Your task to perform on an android device: Go to notification settings Image 0: 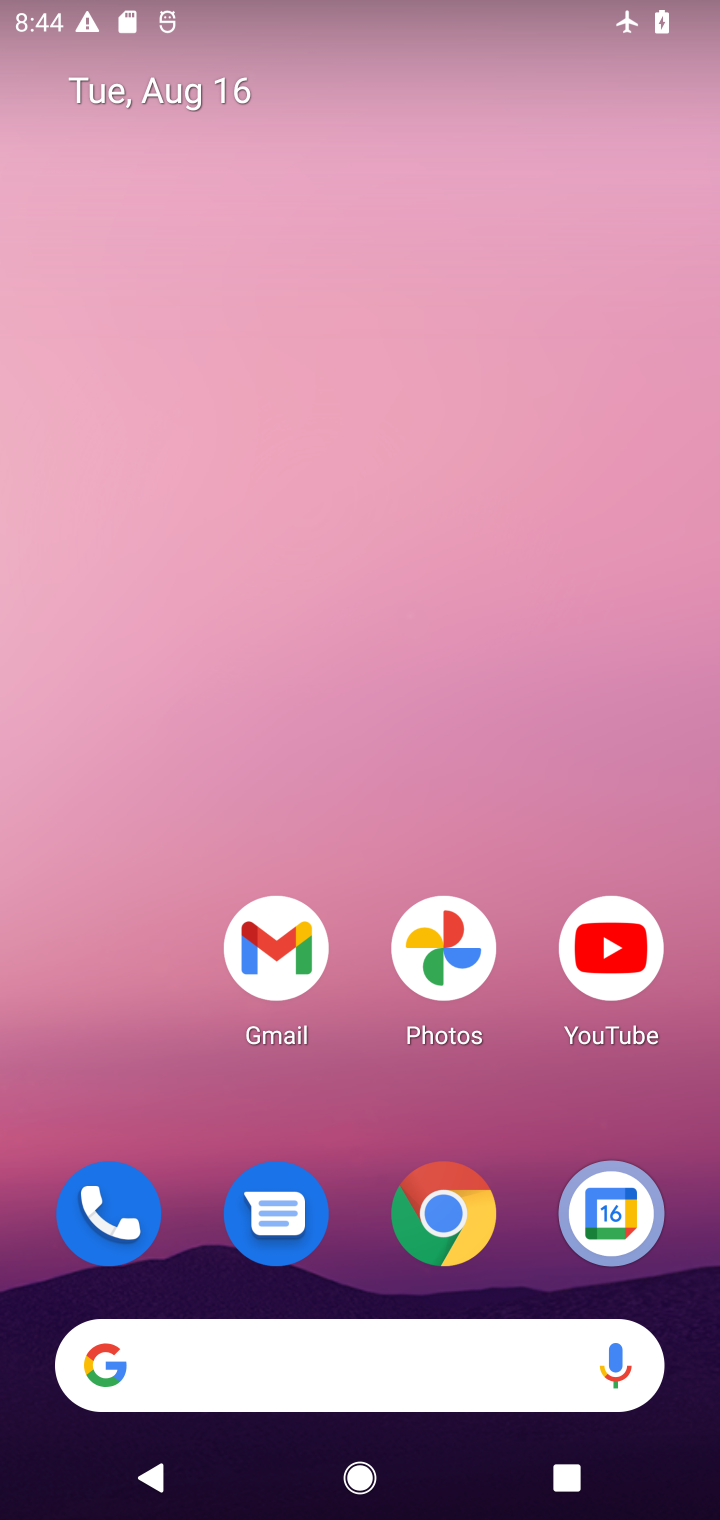
Step 0: drag from (301, 1174) to (340, 335)
Your task to perform on an android device: Go to notification settings Image 1: 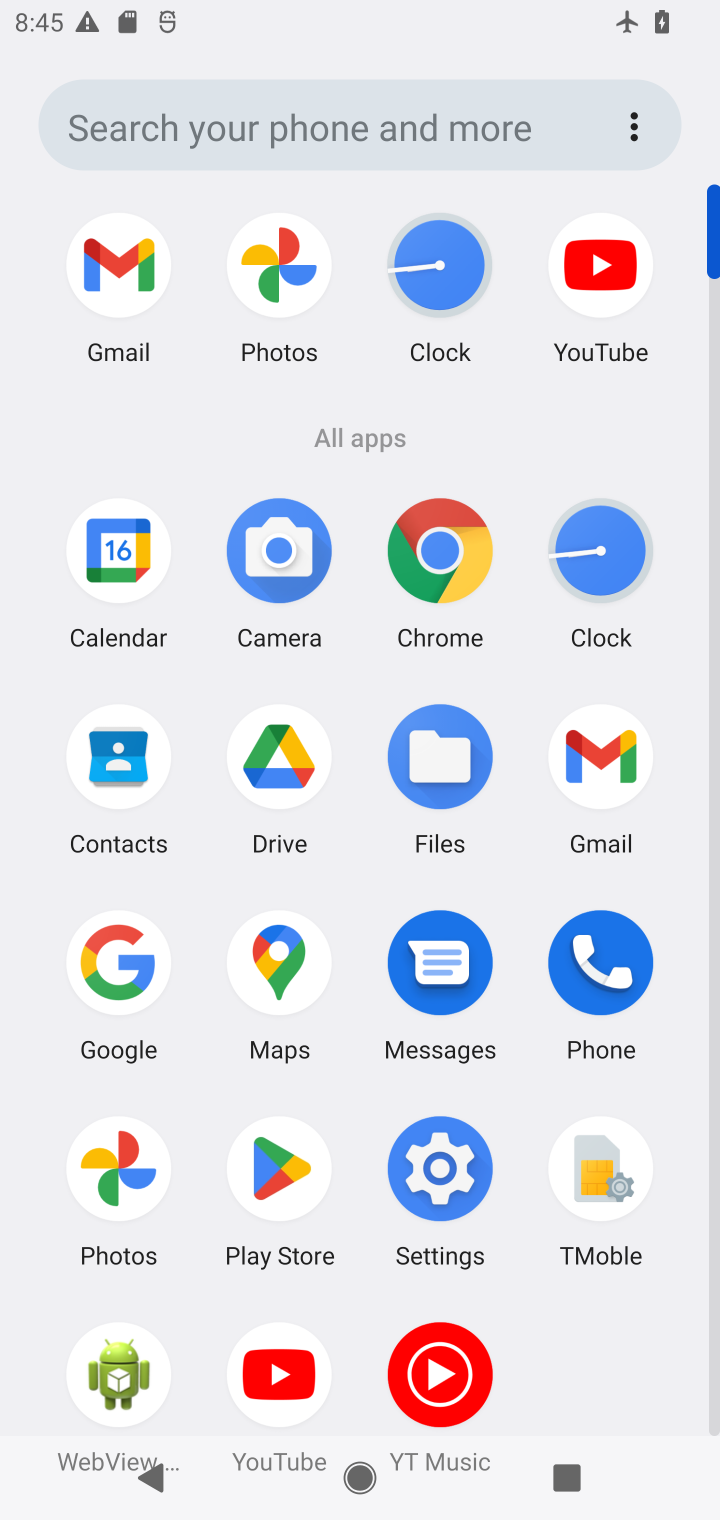
Step 1: click (436, 1153)
Your task to perform on an android device: Go to notification settings Image 2: 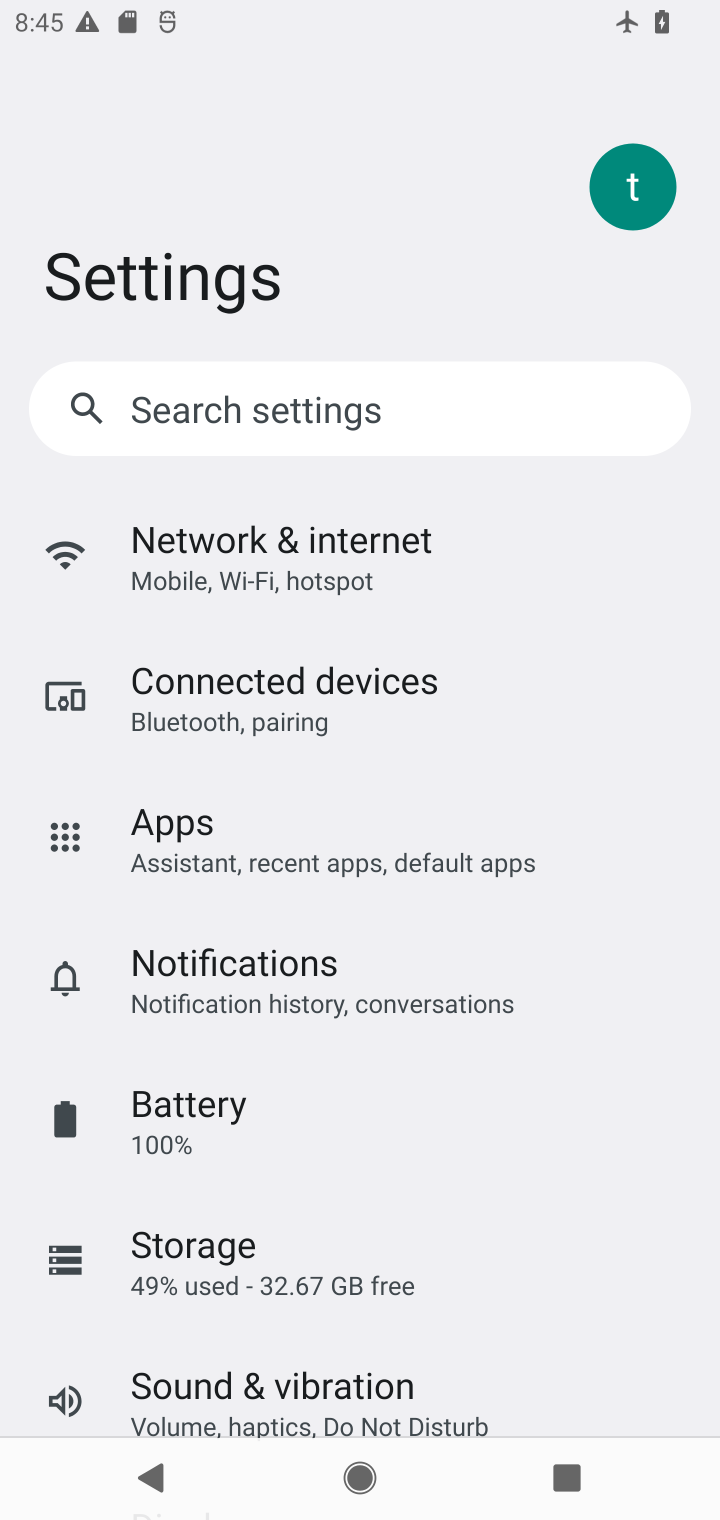
Step 2: click (290, 547)
Your task to perform on an android device: Go to notification settings Image 3: 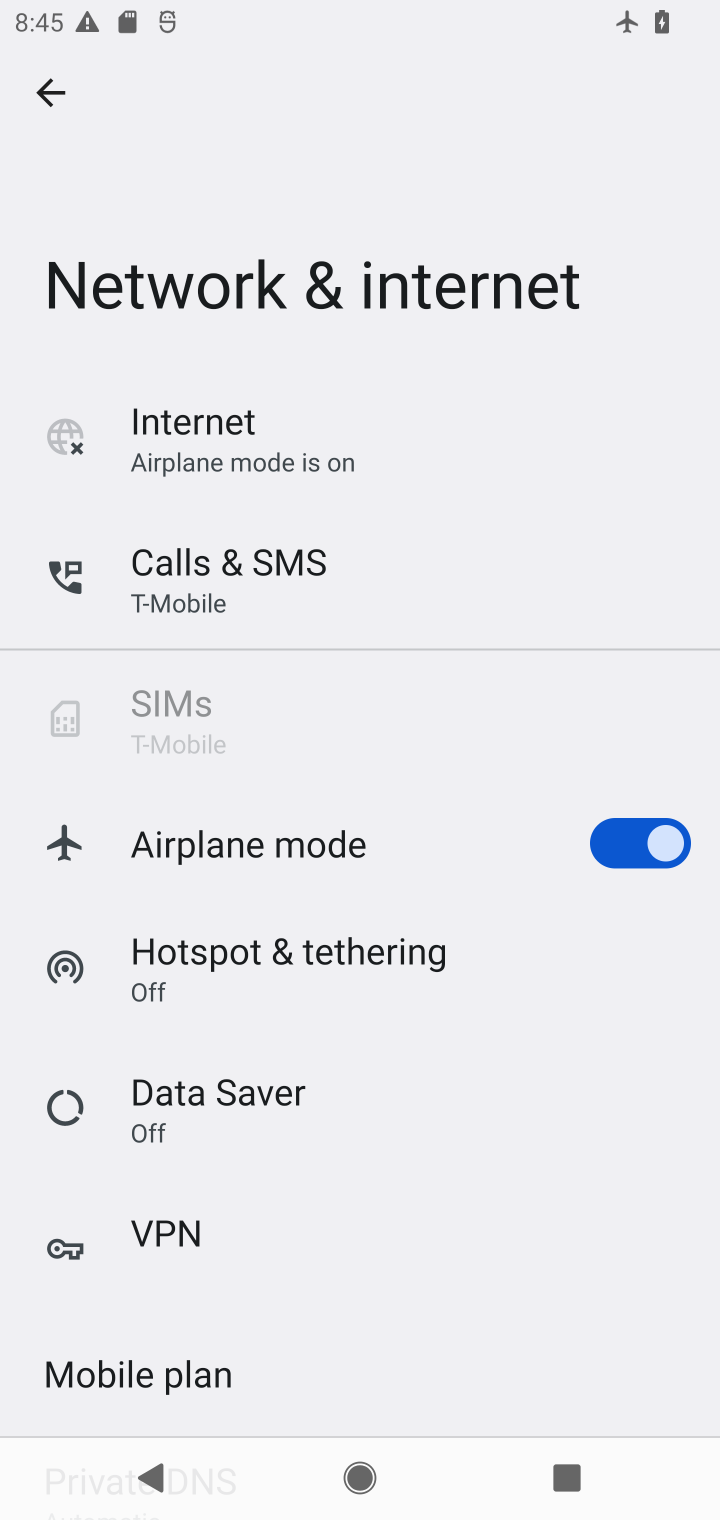
Step 3: click (30, 92)
Your task to perform on an android device: Go to notification settings Image 4: 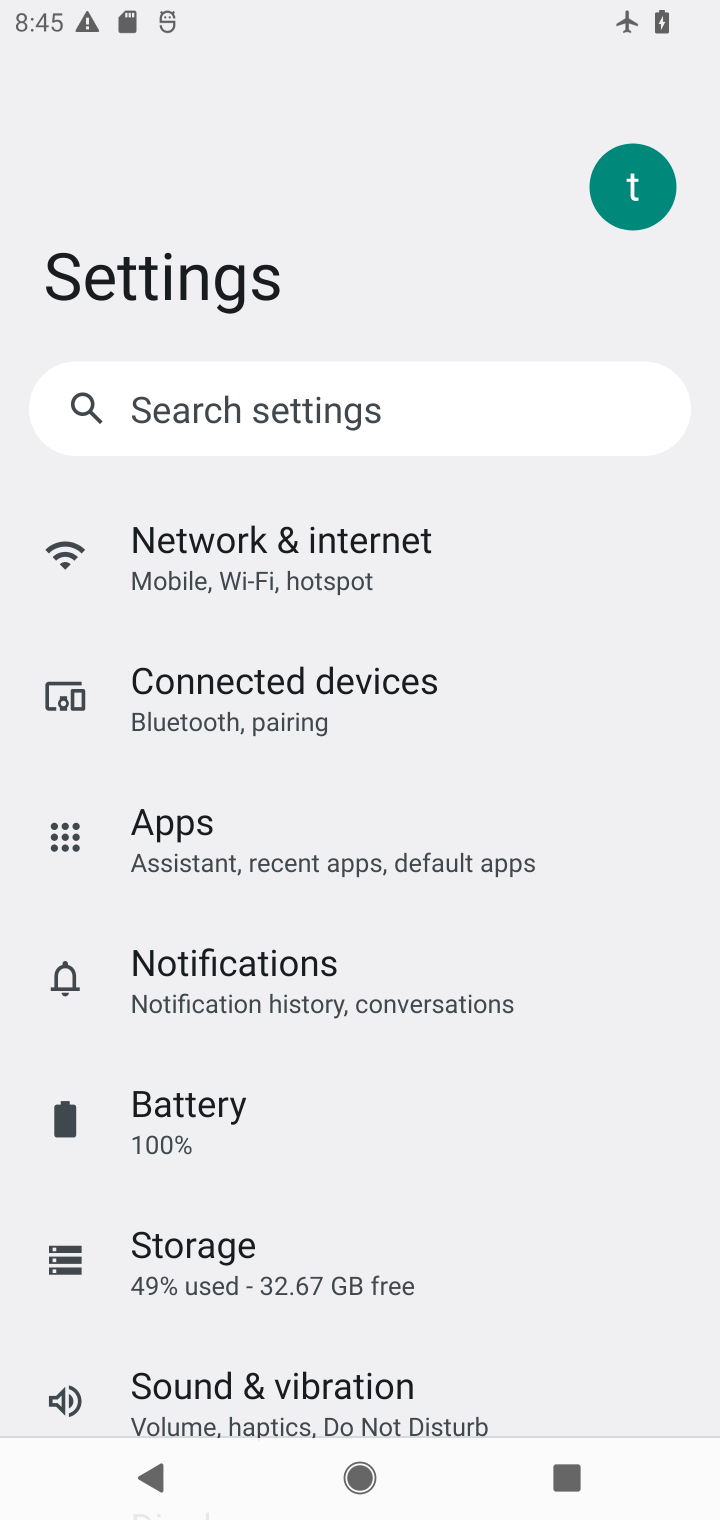
Step 4: click (280, 954)
Your task to perform on an android device: Go to notification settings Image 5: 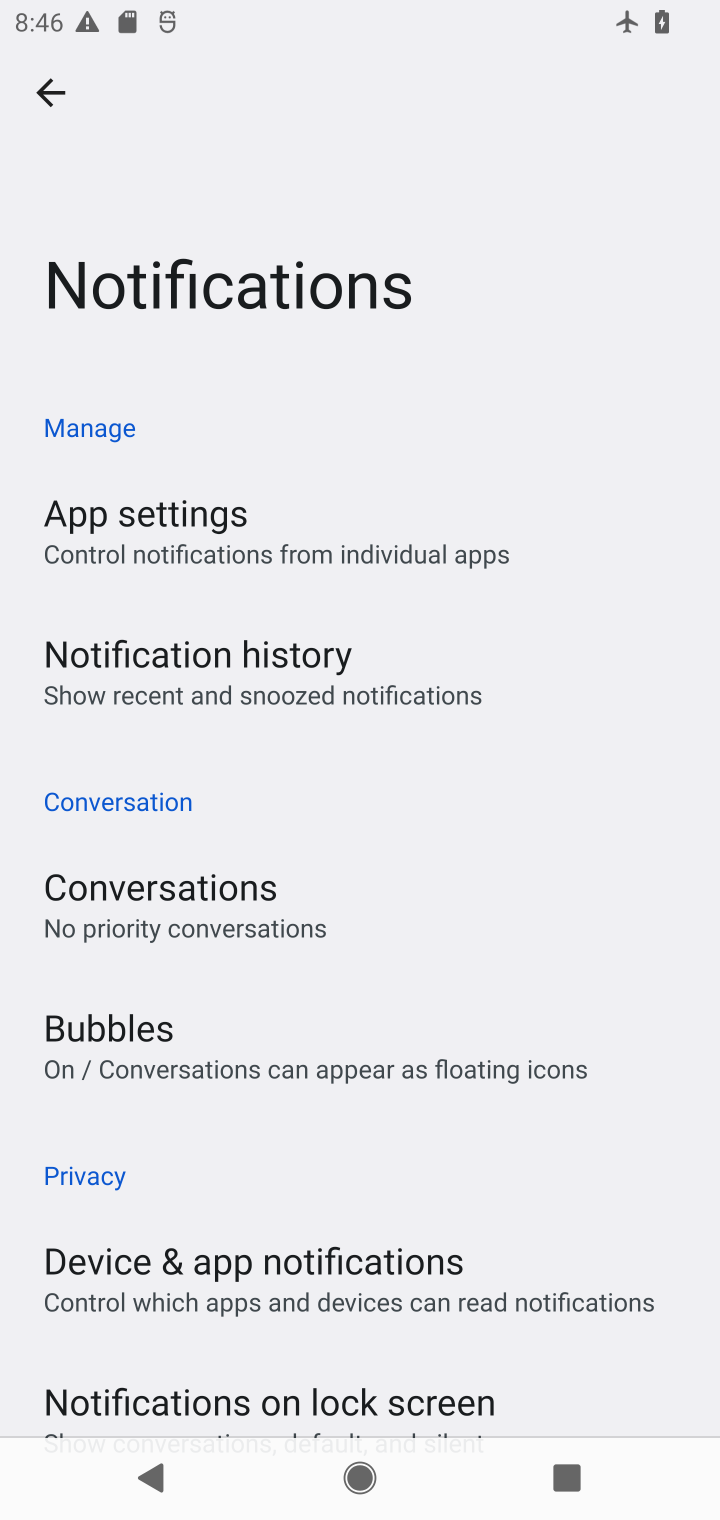
Step 5: task complete